Your task to perform on an android device: Search for the best rated book on Goodreads. Image 0: 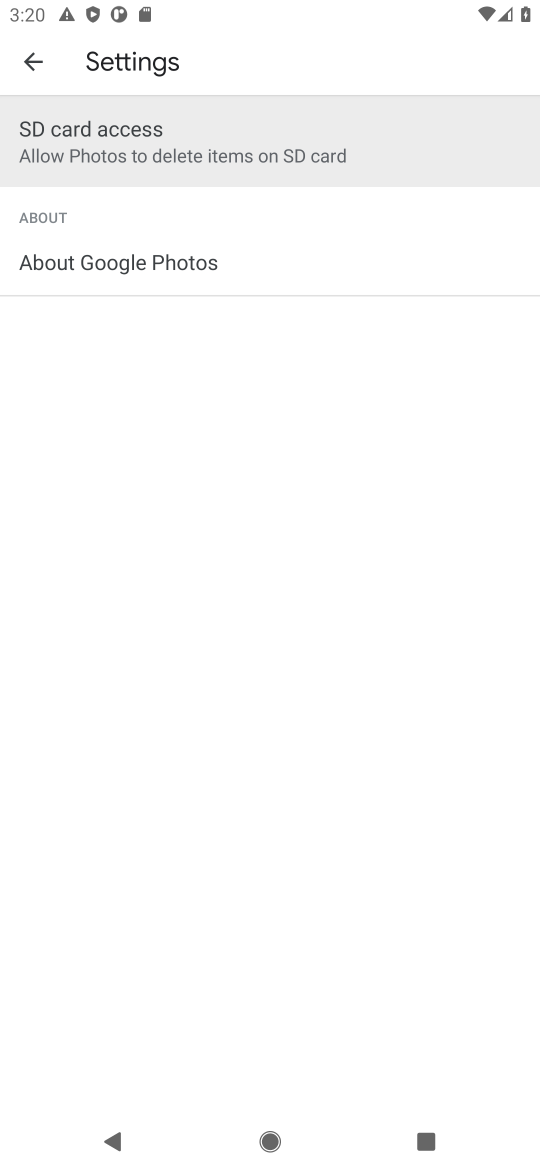
Step 0: task complete